Your task to perform on an android device: star an email in the gmail app Image 0: 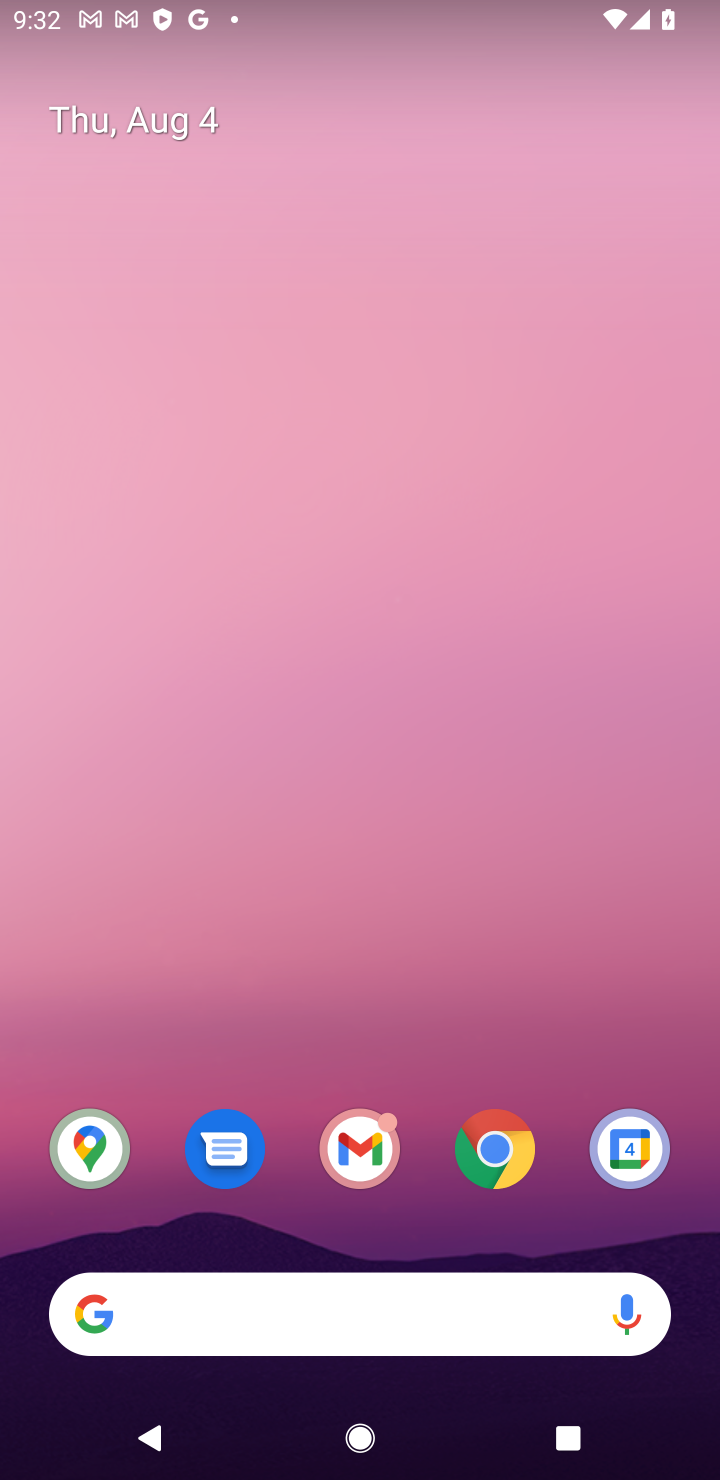
Step 0: click (360, 1149)
Your task to perform on an android device: star an email in the gmail app Image 1: 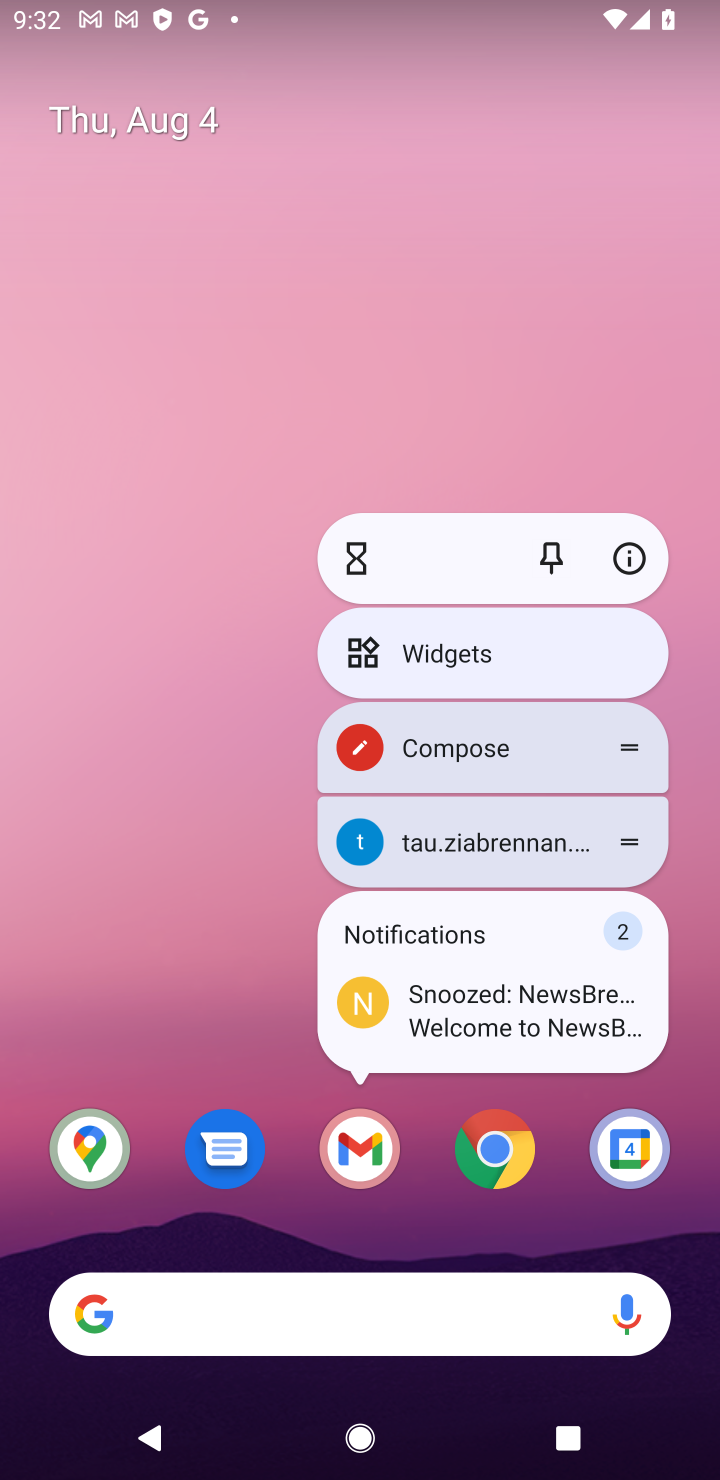
Step 1: click (360, 1149)
Your task to perform on an android device: star an email in the gmail app Image 2: 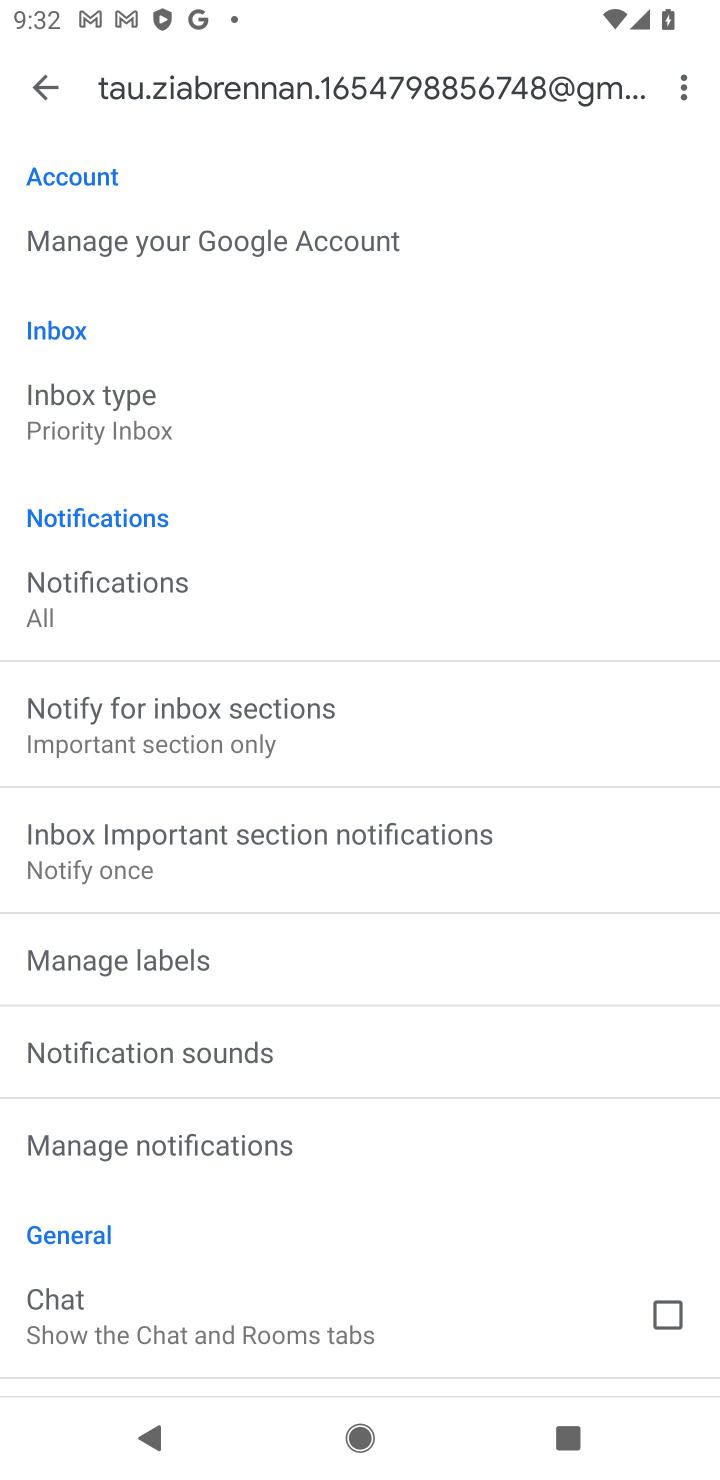
Step 2: task complete